Your task to perform on an android device: Go to accessibility settings Image 0: 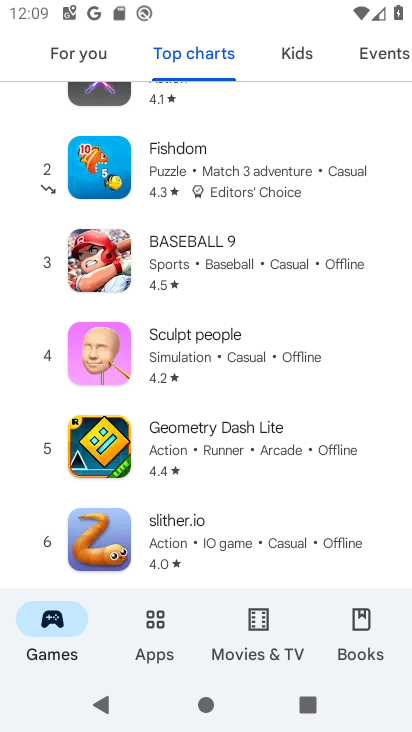
Step 0: press home button
Your task to perform on an android device: Go to accessibility settings Image 1: 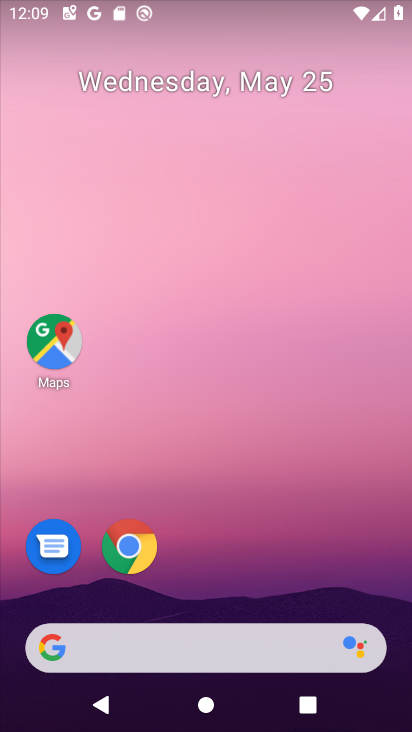
Step 1: drag from (235, 588) to (245, 139)
Your task to perform on an android device: Go to accessibility settings Image 2: 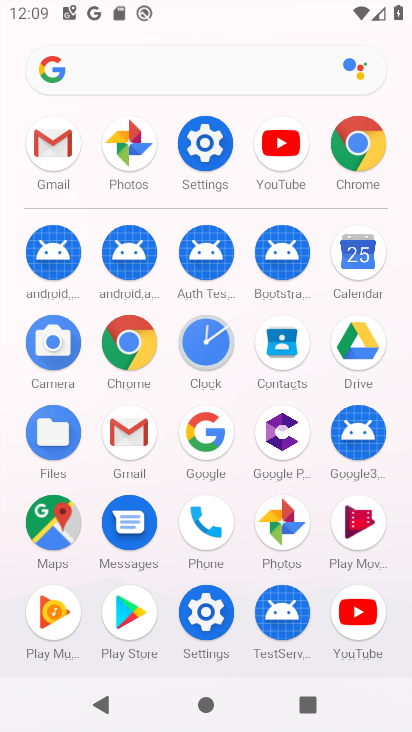
Step 2: click (200, 135)
Your task to perform on an android device: Go to accessibility settings Image 3: 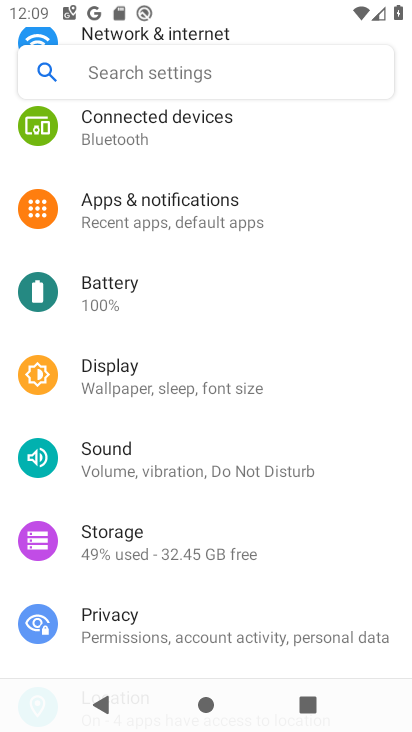
Step 3: drag from (177, 542) to (190, 329)
Your task to perform on an android device: Go to accessibility settings Image 4: 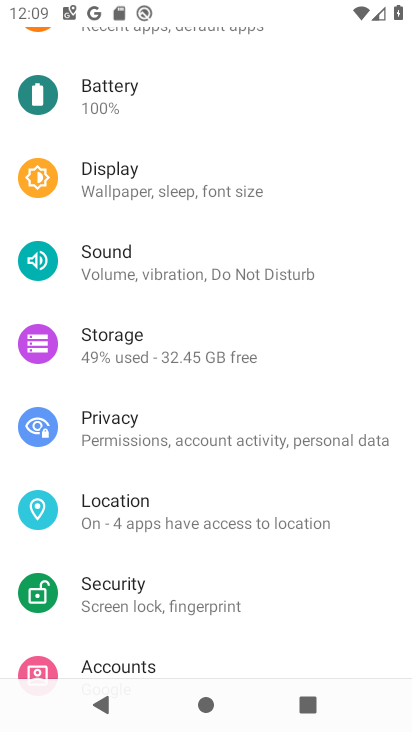
Step 4: drag from (135, 610) to (168, 300)
Your task to perform on an android device: Go to accessibility settings Image 5: 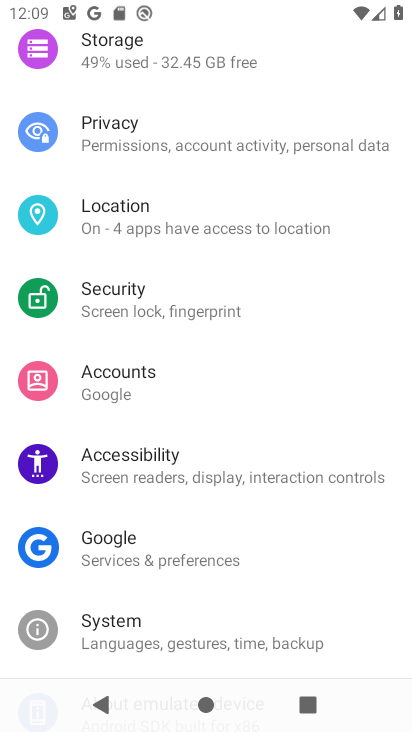
Step 5: click (154, 464)
Your task to perform on an android device: Go to accessibility settings Image 6: 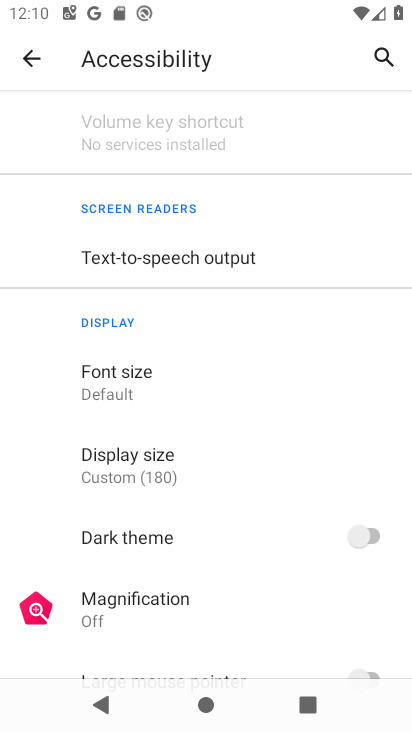
Step 6: task complete